Your task to perform on an android device: turn off smart reply in the gmail app Image 0: 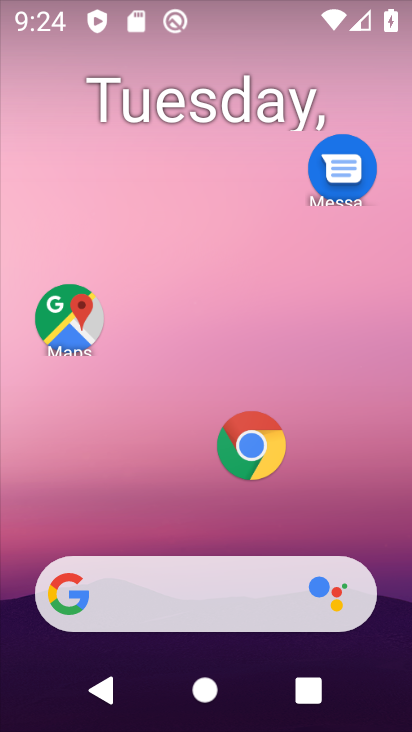
Step 0: drag from (38, 550) to (211, 307)
Your task to perform on an android device: turn off smart reply in the gmail app Image 1: 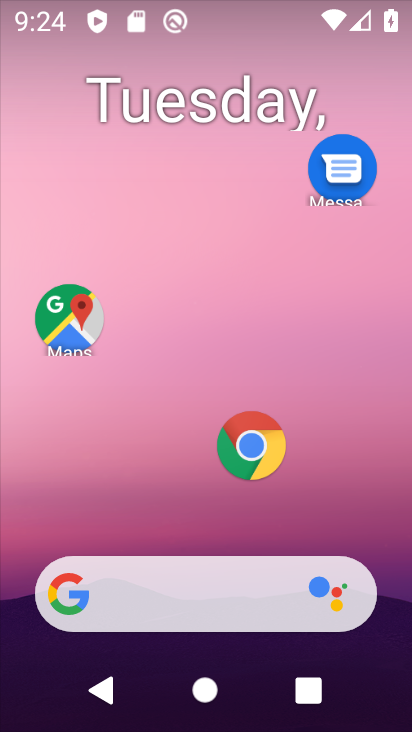
Step 1: drag from (118, 450) to (263, 216)
Your task to perform on an android device: turn off smart reply in the gmail app Image 2: 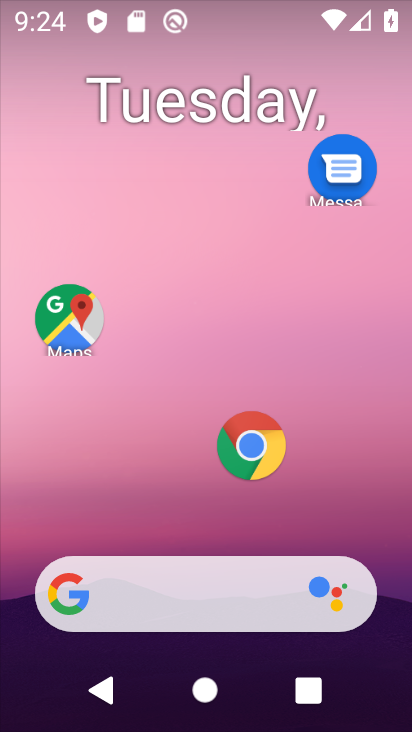
Step 2: drag from (0, 708) to (181, 353)
Your task to perform on an android device: turn off smart reply in the gmail app Image 3: 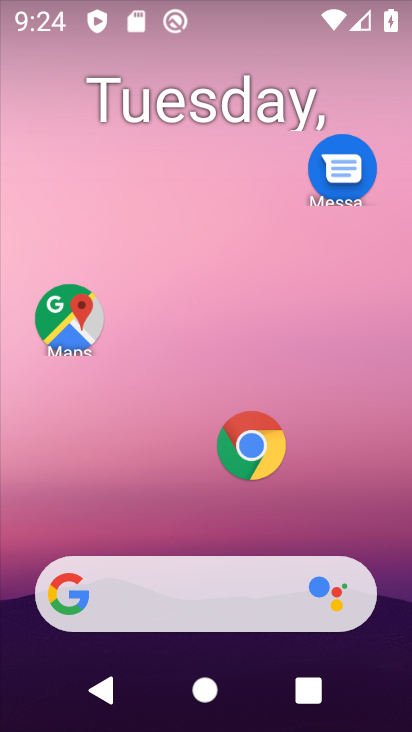
Step 3: click (201, 315)
Your task to perform on an android device: turn off smart reply in the gmail app Image 4: 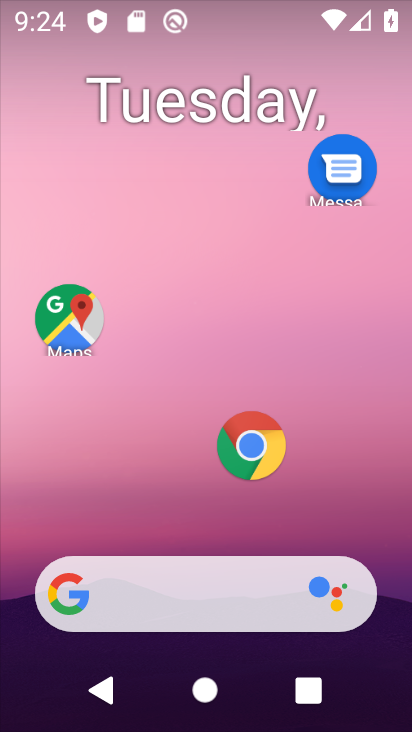
Step 4: drag from (145, 352) to (237, 194)
Your task to perform on an android device: turn off smart reply in the gmail app Image 5: 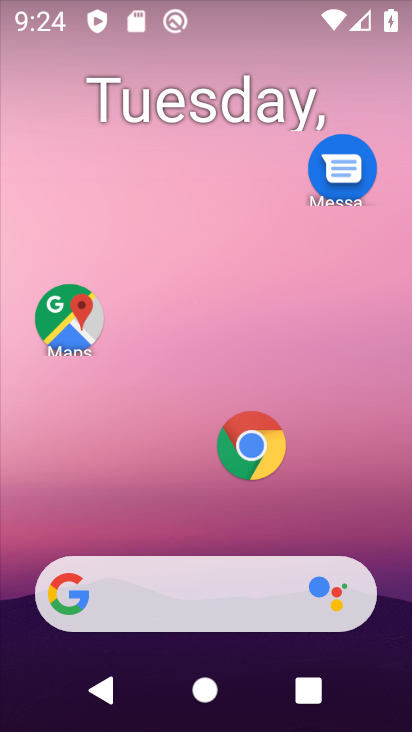
Step 5: drag from (13, 700) to (199, 211)
Your task to perform on an android device: turn off smart reply in the gmail app Image 6: 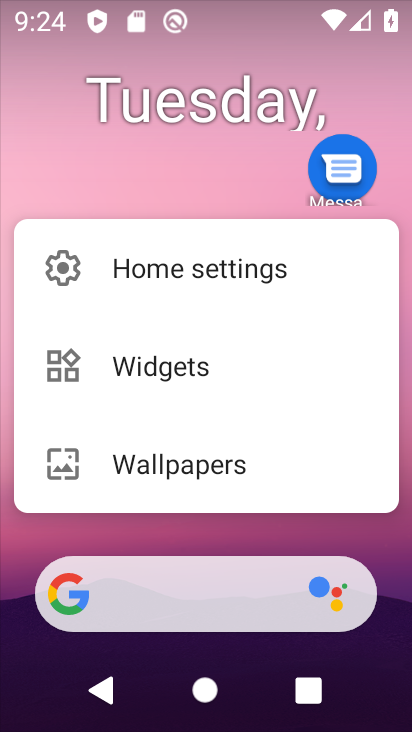
Step 6: click (21, 601)
Your task to perform on an android device: turn off smart reply in the gmail app Image 7: 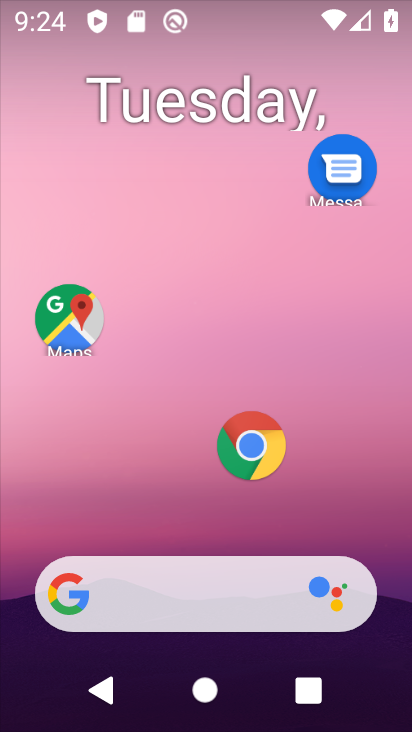
Step 7: drag from (63, 489) to (153, 336)
Your task to perform on an android device: turn off smart reply in the gmail app Image 8: 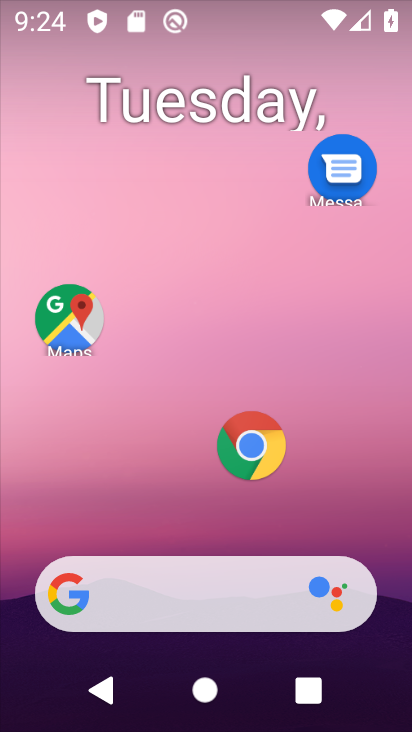
Step 8: drag from (167, 380) to (233, 263)
Your task to perform on an android device: turn off smart reply in the gmail app Image 9: 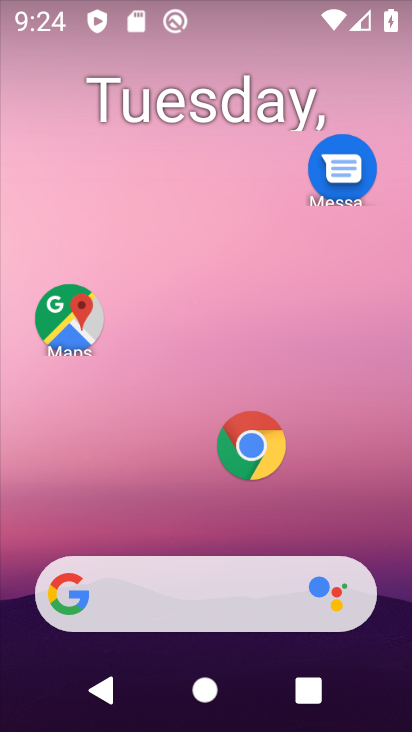
Step 9: drag from (11, 534) to (53, 456)
Your task to perform on an android device: turn off smart reply in the gmail app Image 10: 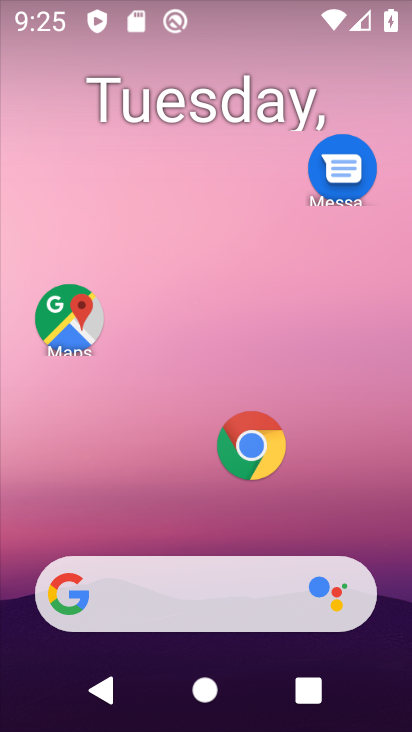
Step 10: drag from (98, 415) to (191, 226)
Your task to perform on an android device: turn off smart reply in the gmail app Image 11: 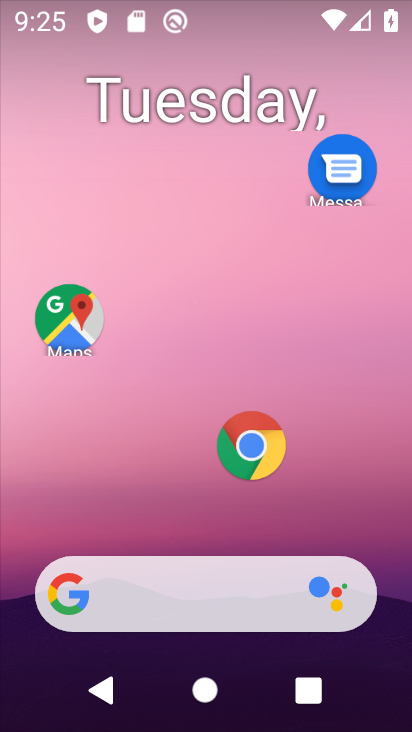
Step 11: drag from (87, 449) to (197, 216)
Your task to perform on an android device: turn off smart reply in the gmail app Image 12: 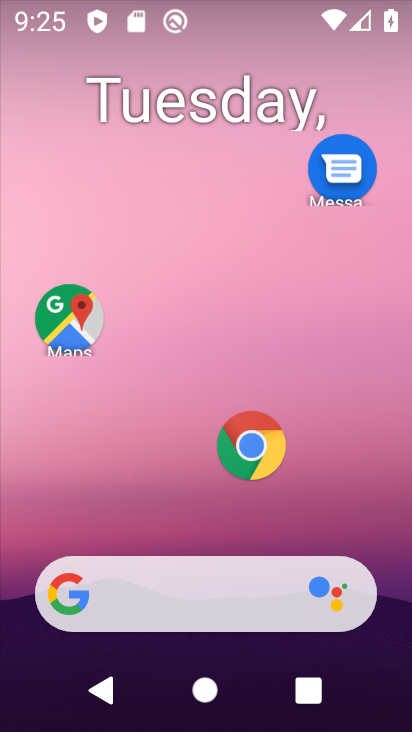
Step 12: drag from (127, 355) to (178, 228)
Your task to perform on an android device: turn off smart reply in the gmail app Image 13: 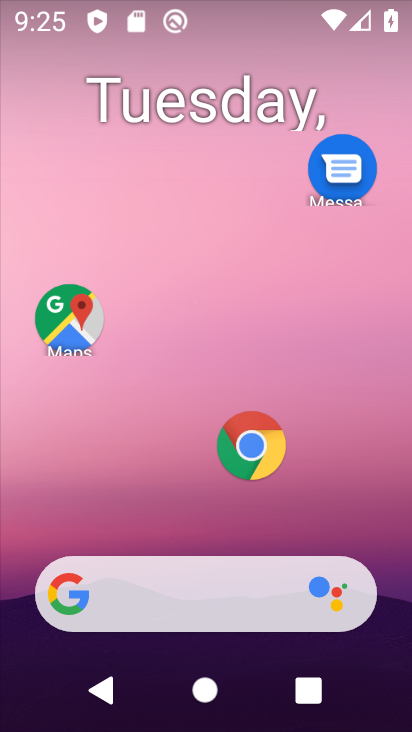
Step 13: drag from (64, 484) to (195, 176)
Your task to perform on an android device: turn off smart reply in the gmail app Image 14: 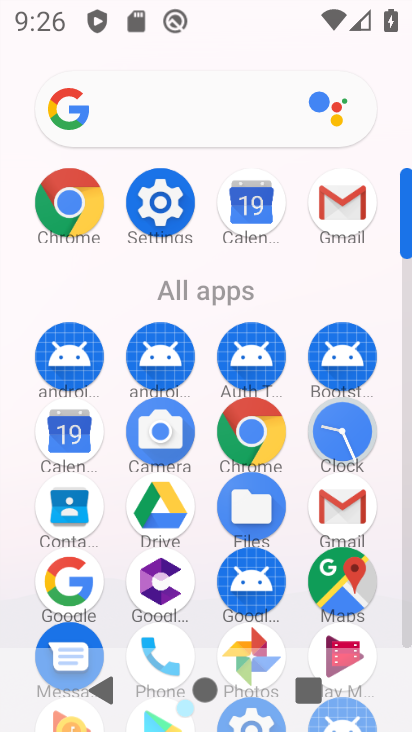
Step 14: click (371, 203)
Your task to perform on an android device: turn off smart reply in the gmail app Image 15: 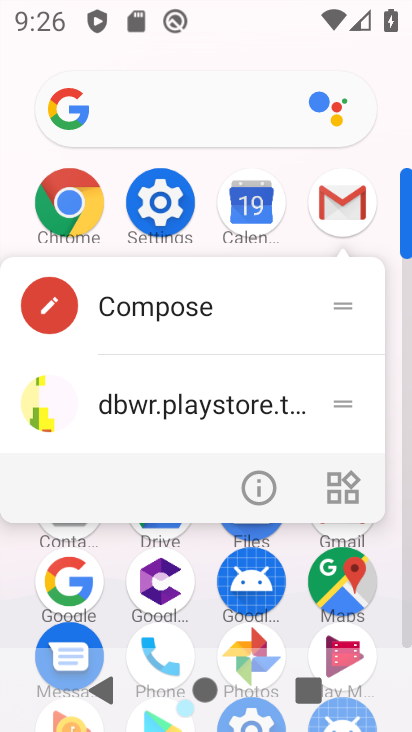
Step 15: click (354, 208)
Your task to perform on an android device: turn off smart reply in the gmail app Image 16: 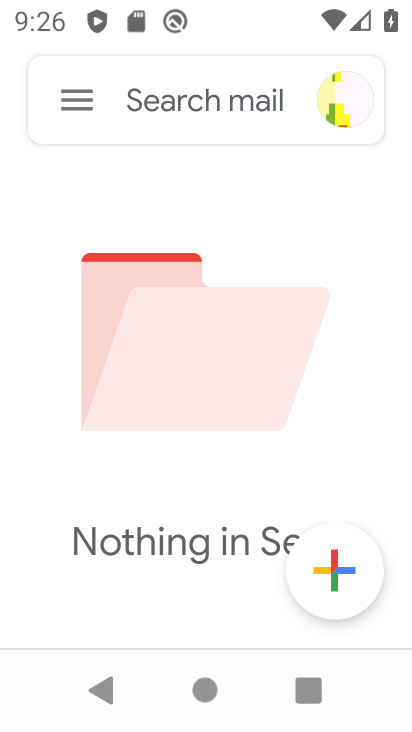
Step 16: click (69, 113)
Your task to perform on an android device: turn off smart reply in the gmail app Image 17: 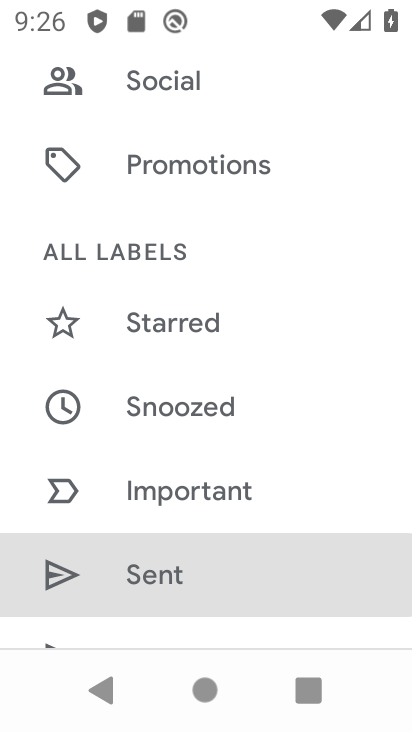
Step 17: drag from (12, 570) to (141, 326)
Your task to perform on an android device: turn off smart reply in the gmail app Image 18: 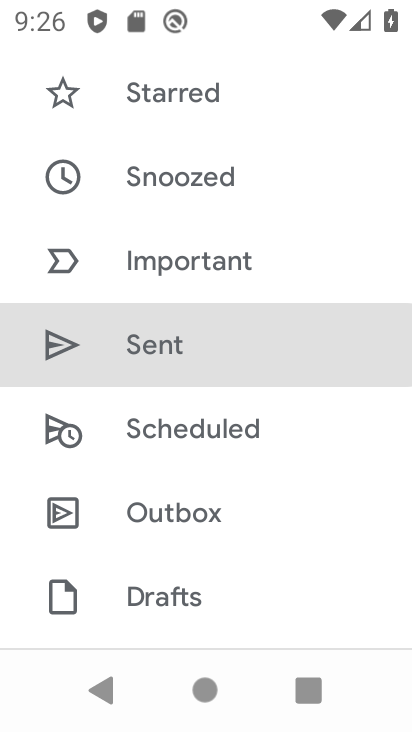
Step 18: drag from (15, 625) to (203, 324)
Your task to perform on an android device: turn off smart reply in the gmail app Image 19: 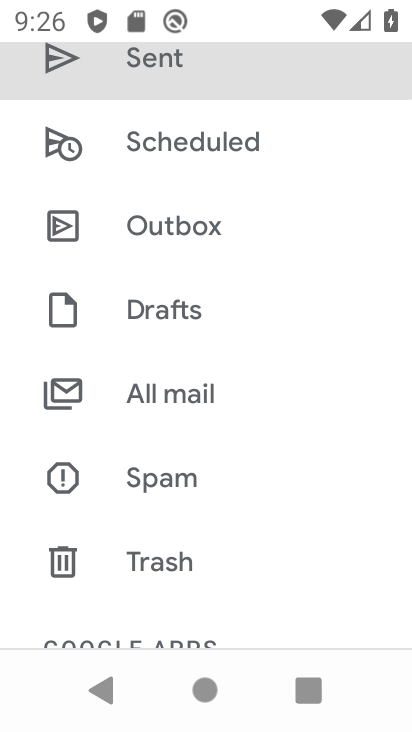
Step 19: drag from (91, 522) to (213, 288)
Your task to perform on an android device: turn off smart reply in the gmail app Image 20: 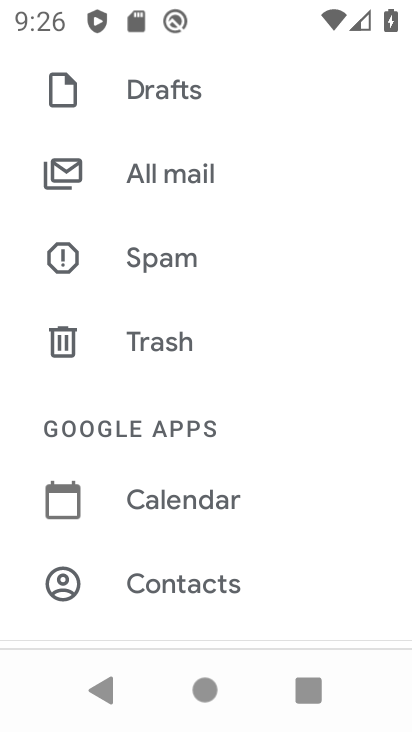
Step 20: drag from (47, 573) to (186, 378)
Your task to perform on an android device: turn off smart reply in the gmail app Image 21: 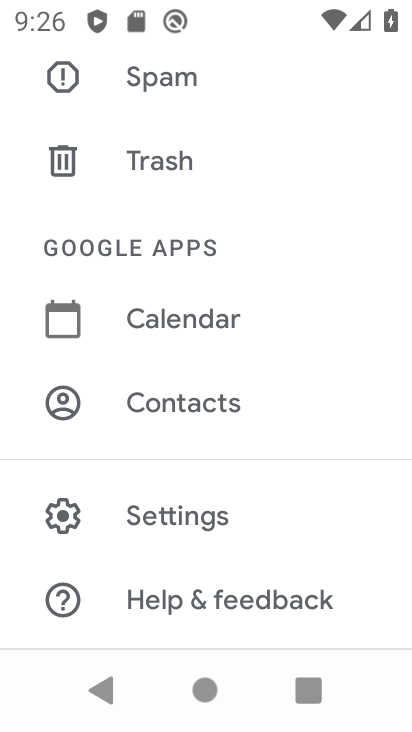
Step 21: click (136, 504)
Your task to perform on an android device: turn off smart reply in the gmail app Image 22: 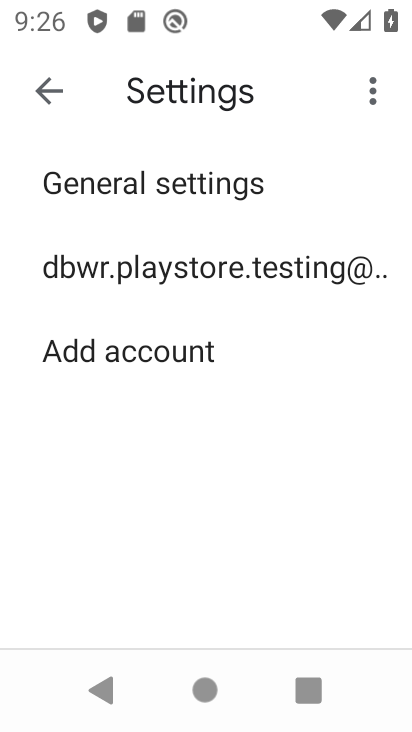
Step 22: click (156, 289)
Your task to perform on an android device: turn off smart reply in the gmail app Image 23: 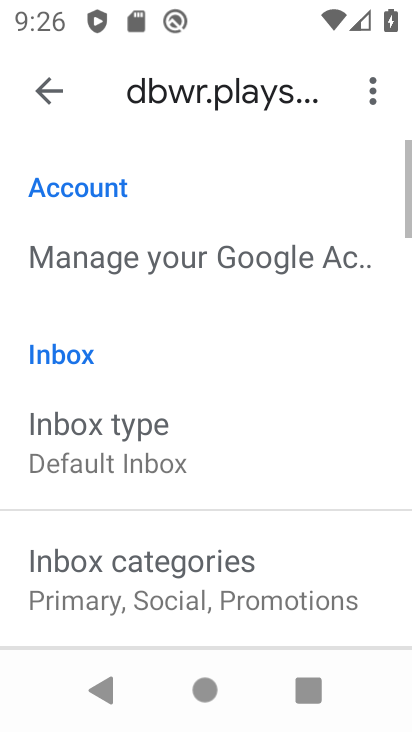
Step 23: task complete